Your task to perform on an android device: Open location settings Image 0: 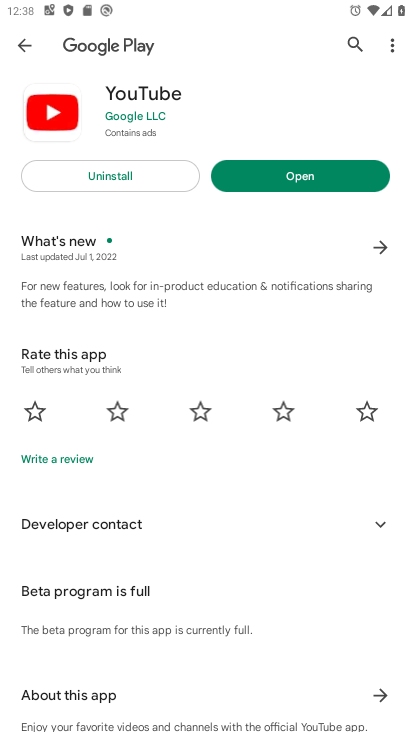
Step 0: press home button
Your task to perform on an android device: Open location settings Image 1: 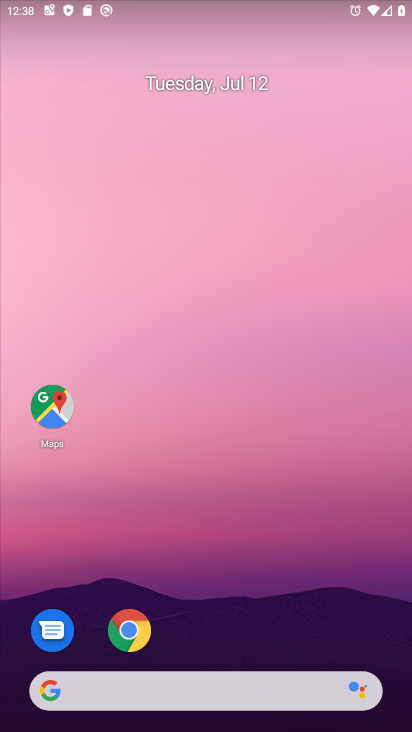
Step 1: drag from (220, 690) to (309, 209)
Your task to perform on an android device: Open location settings Image 2: 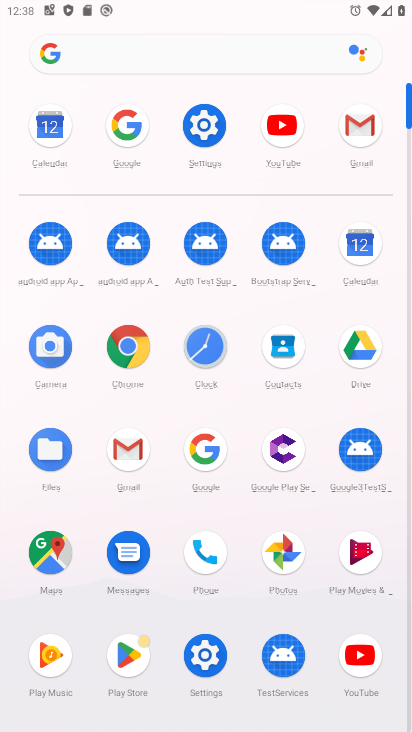
Step 2: click (203, 122)
Your task to perform on an android device: Open location settings Image 3: 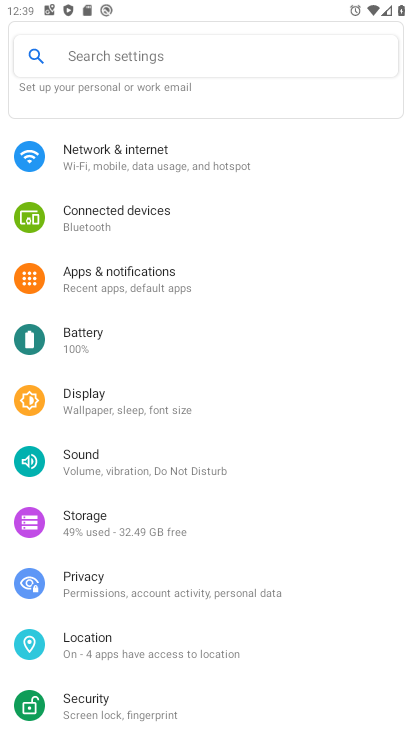
Step 3: click (86, 644)
Your task to perform on an android device: Open location settings Image 4: 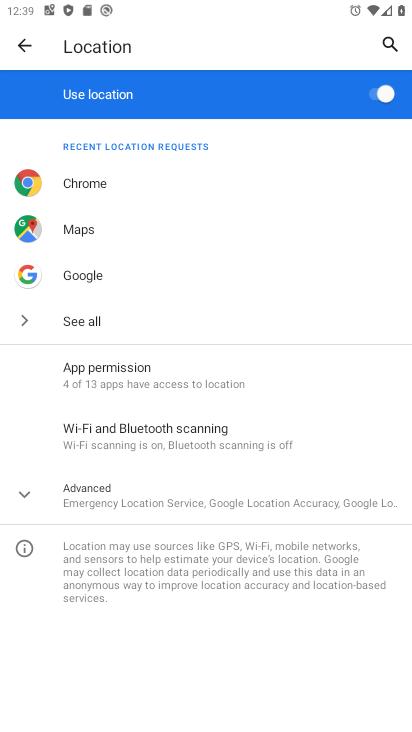
Step 4: task complete